Your task to perform on an android device: Show me the alarms in the clock app Image 0: 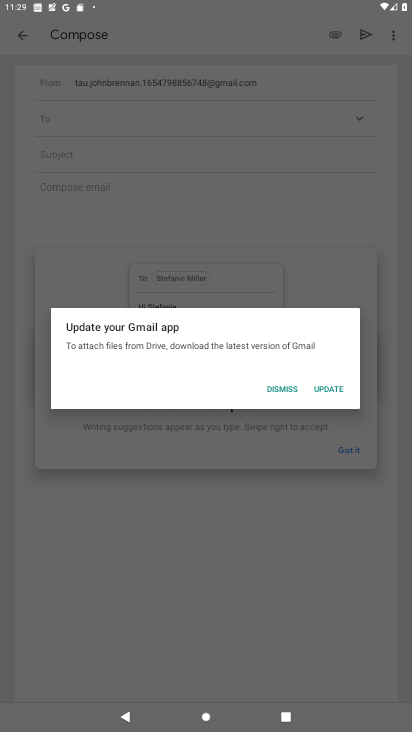
Step 0: press home button
Your task to perform on an android device: Show me the alarms in the clock app Image 1: 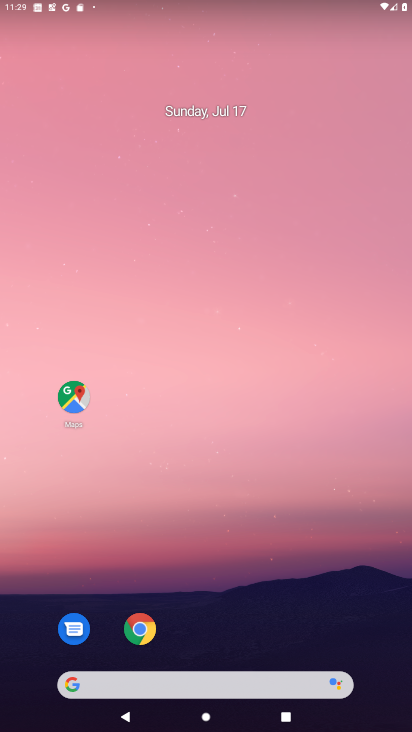
Step 1: drag from (211, 686) to (319, 204)
Your task to perform on an android device: Show me the alarms in the clock app Image 2: 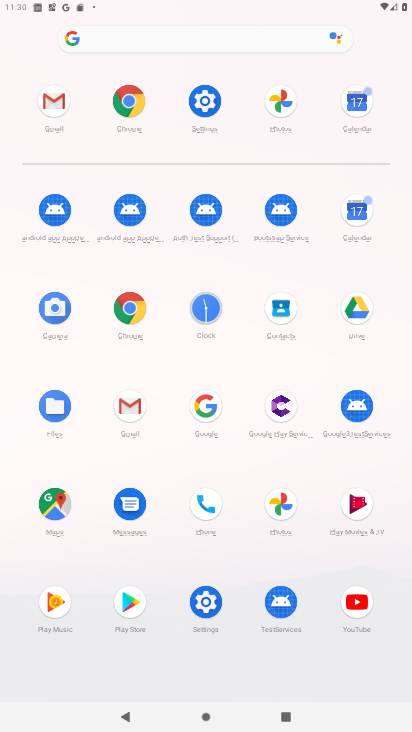
Step 2: click (206, 309)
Your task to perform on an android device: Show me the alarms in the clock app Image 3: 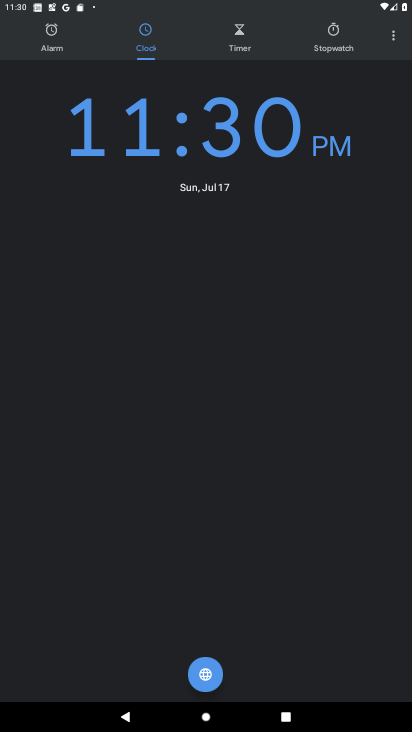
Step 3: click (52, 32)
Your task to perform on an android device: Show me the alarms in the clock app Image 4: 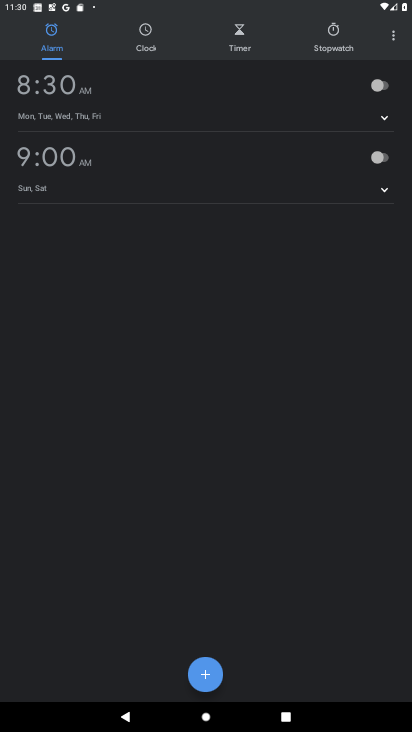
Step 4: click (205, 675)
Your task to perform on an android device: Show me the alarms in the clock app Image 5: 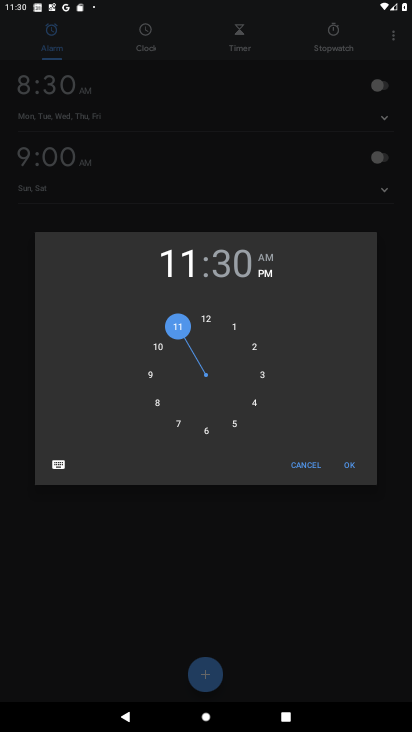
Step 5: click (204, 435)
Your task to perform on an android device: Show me the alarms in the clock app Image 6: 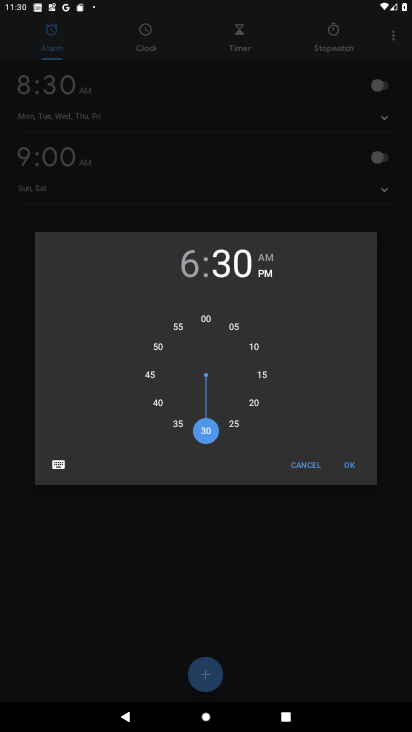
Step 6: click (157, 348)
Your task to perform on an android device: Show me the alarms in the clock app Image 7: 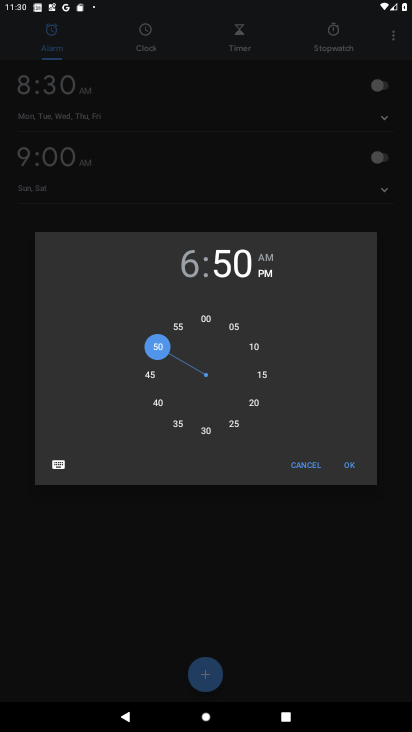
Step 7: click (263, 254)
Your task to perform on an android device: Show me the alarms in the clock app Image 8: 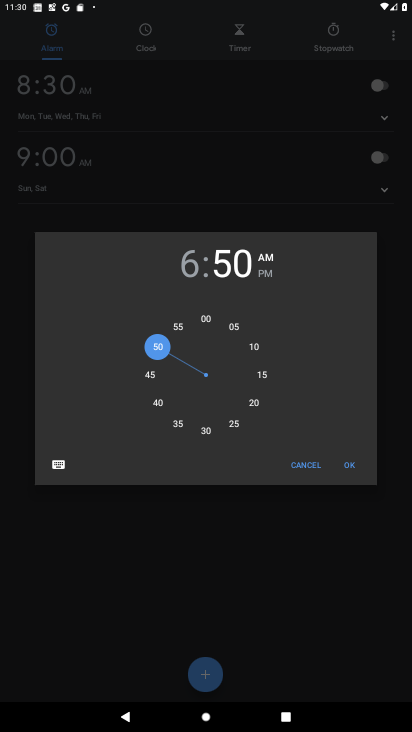
Step 8: click (353, 466)
Your task to perform on an android device: Show me the alarms in the clock app Image 9: 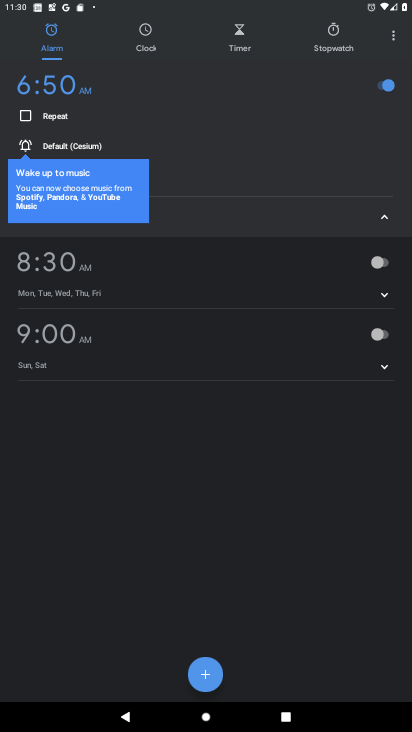
Step 9: click (385, 219)
Your task to perform on an android device: Show me the alarms in the clock app Image 10: 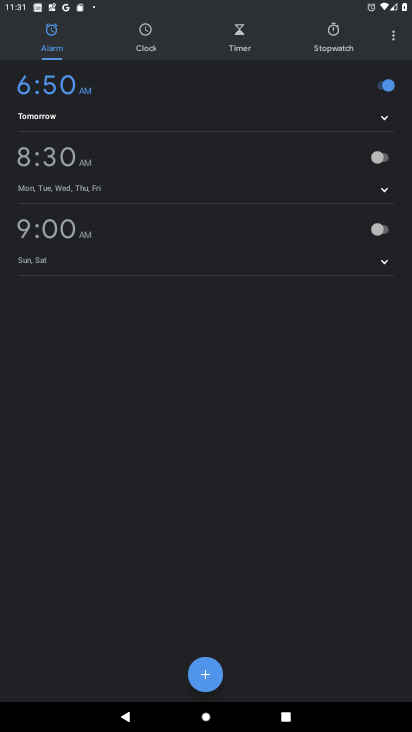
Step 10: task complete